Your task to perform on an android device: turn off notifications settings in the gmail app Image 0: 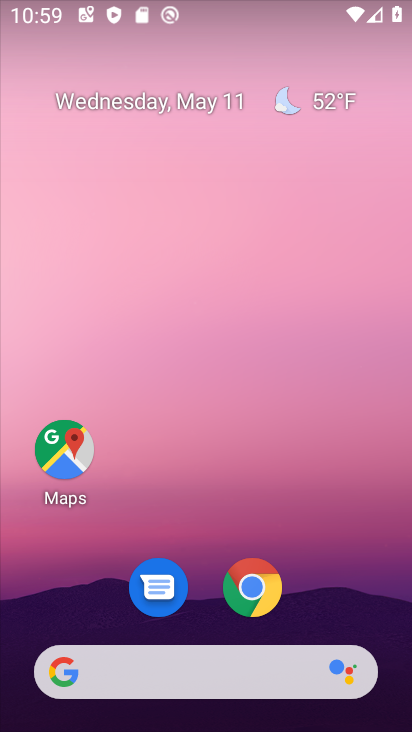
Step 0: drag from (265, 681) to (288, 247)
Your task to perform on an android device: turn off notifications settings in the gmail app Image 1: 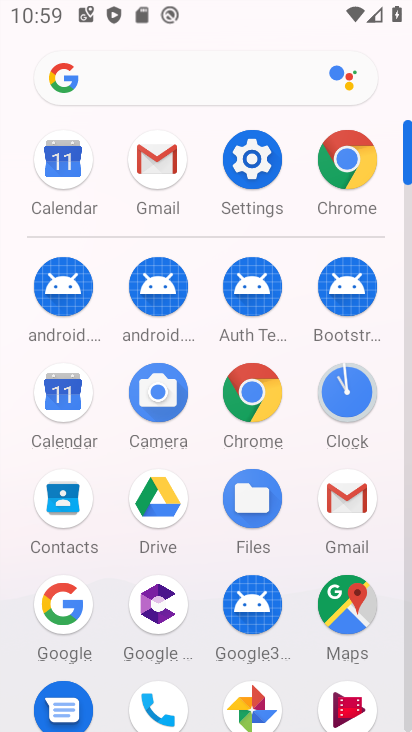
Step 1: click (244, 181)
Your task to perform on an android device: turn off notifications settings in the gmail app Image 2: 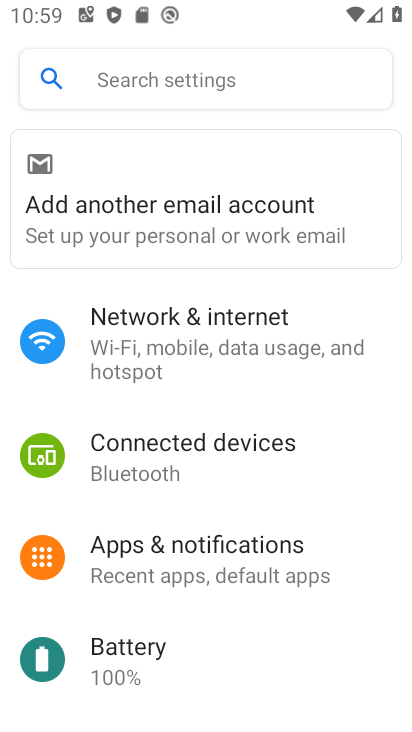
Step 2: click (161, 88)
Your task to perform on an android device: turn off notifications settings in the gmail app Image 3: 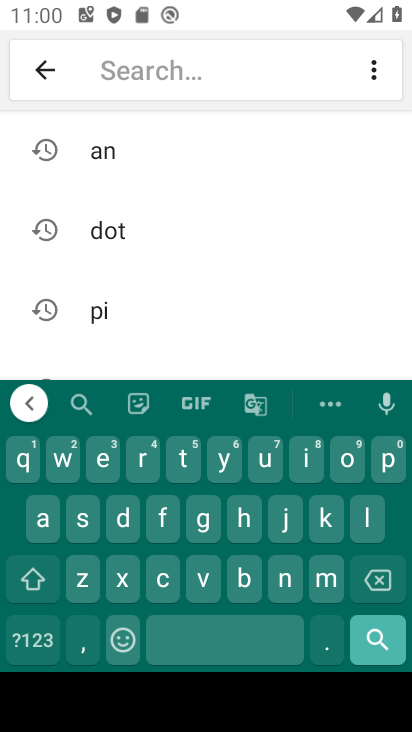
Step 3: click (284, 580)
Your task to perform on an android device: turn off notifications settings in the gmail app Image 4: 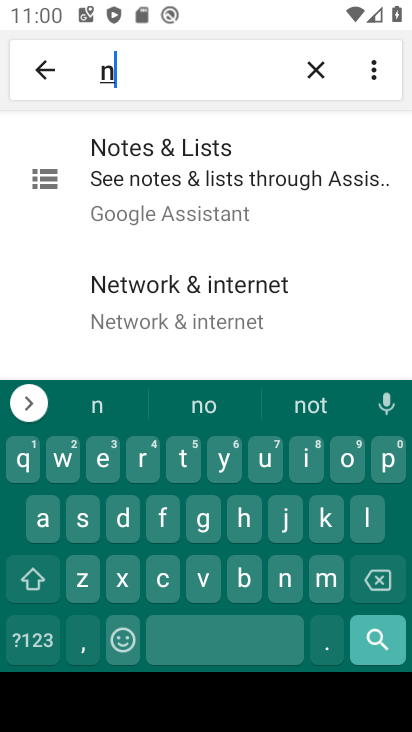
Step 4: click (343, 466)
Your task to perform on an android device: turn off notifications settings in the gmail app Image 5: 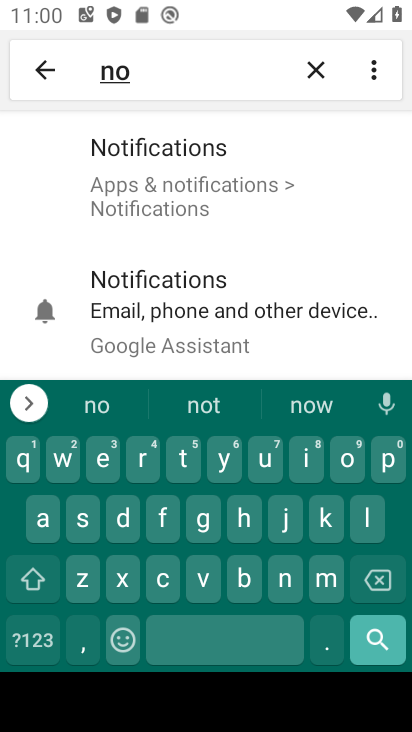
Step 5: click (210, 189)
Your task to perform on an android device: turn off notifications settings in the gmail app Image 6: 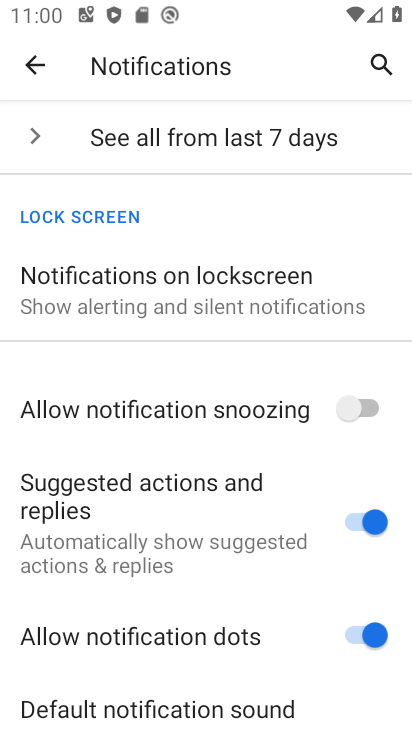
Step 6: click (161, 301)
Your task to perform on an android device: turn off notifications settings in the gmail app Image 7: 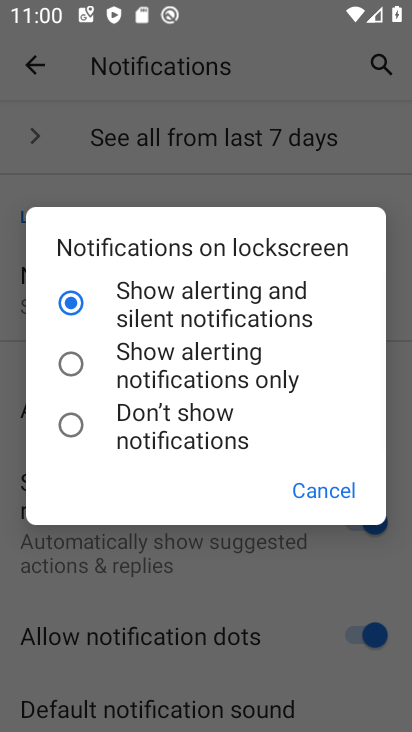
Step 7: click (149, 435)
Your task to perform on an android device: turn off notifications settings in the gmail app Image 8: 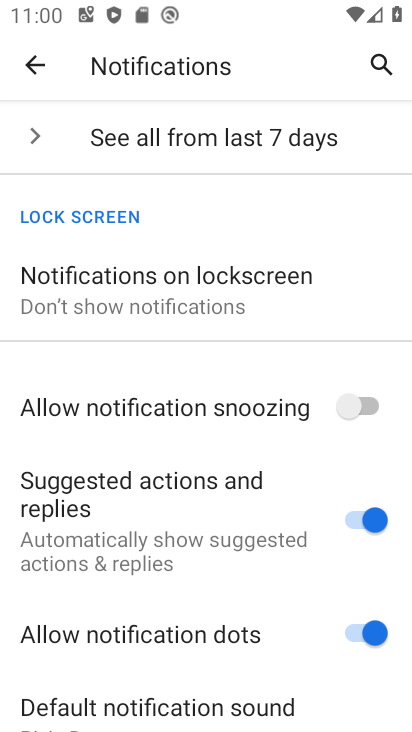
Step 8: task complete